Your task to perform on an android device: open a bookmark in the chrome app Image 0: 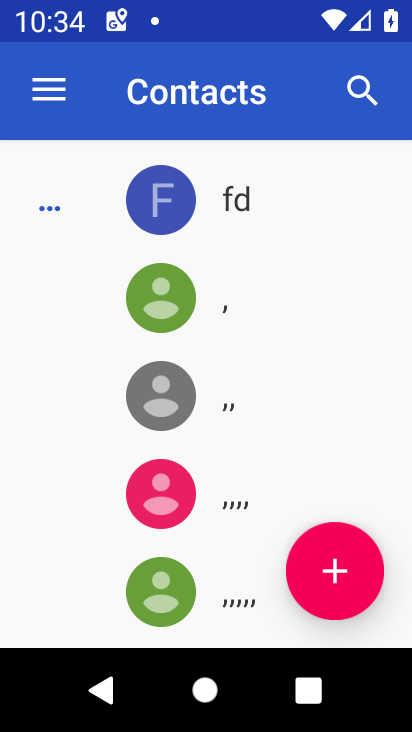
Step 0: press home button
Your task to perform on an android device: open a bookmark in the chrome app Image 1: 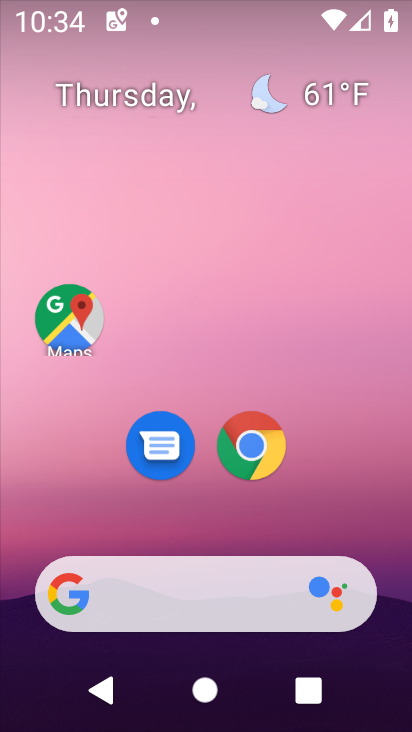
Step 1: click (252, 437)
Your task to perform on an android device: open a bookmark in the chrome app Image 2: 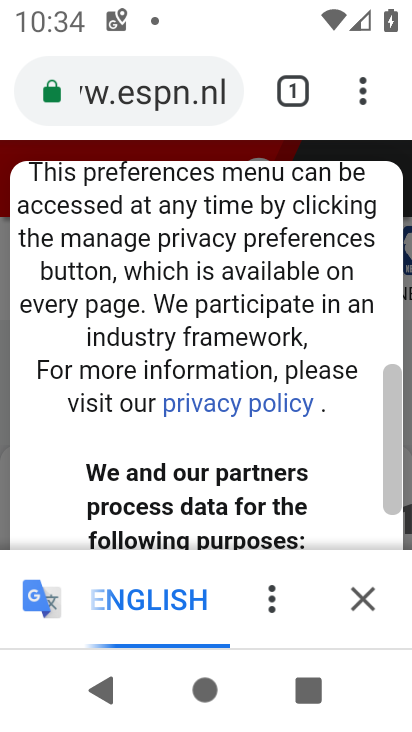
Step 2: click (354, 99)
Your task to perform on an android device: open a bookmark in the chrome app Image 3: 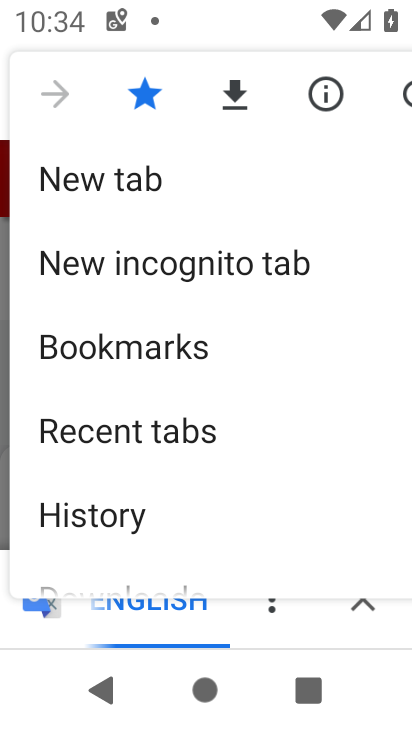
Step 3: click (136, 333)
Your task to perform on an android device: open a bookmark in the chrome app Image 4: 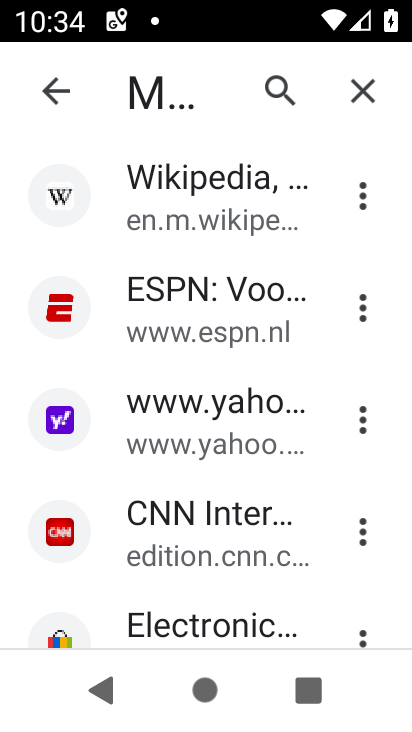
Step 4: click (162, 618)
Your task to perform on an android device: open a bookmark in the chrome app Image 5: 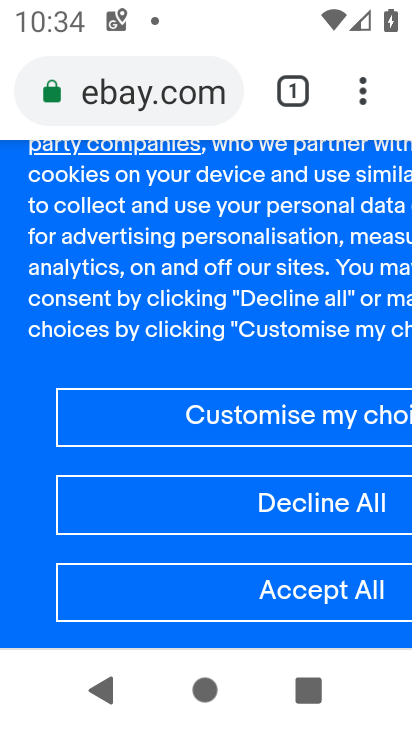
Step 5: task complete